Your task to perform on an android device: Go to privacy settings Image 0: 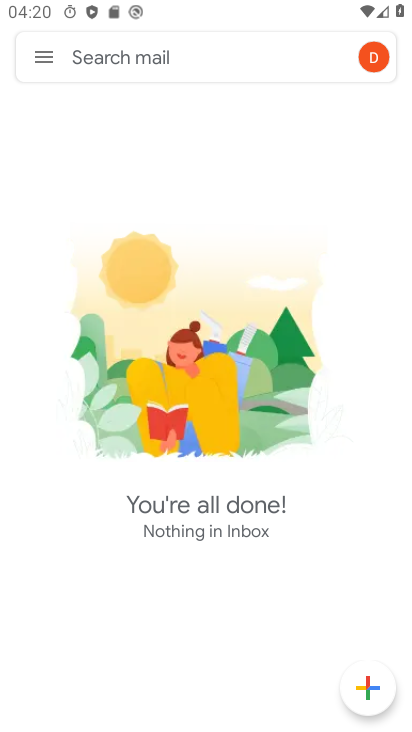
Step 0: press home button
Your task to perform on an android device: Go to privacy settings Image 1: 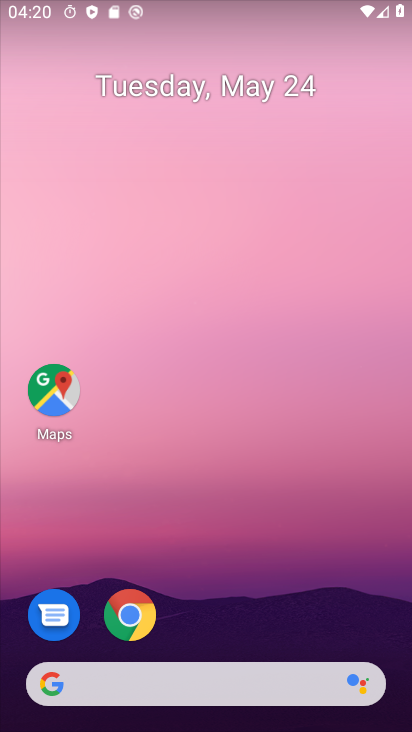
Step 1: drag from (215, 618) to (300, 85)
Your task to perform on an android device: Go to privacy settings Image 2: 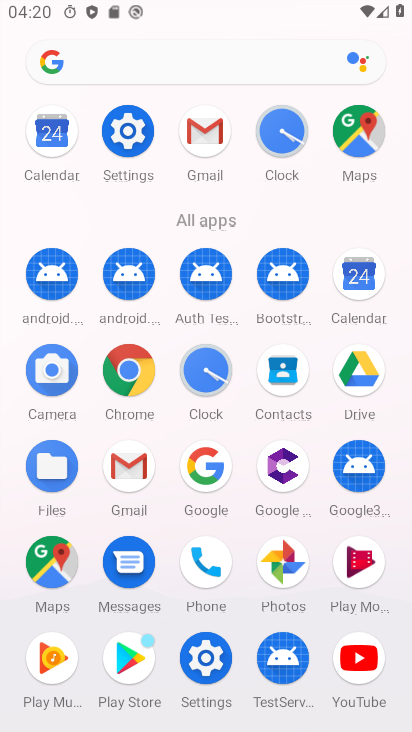
Step 2: click (136, 128)
Your task to perform on an android device: Go to privacy settings Image 3: 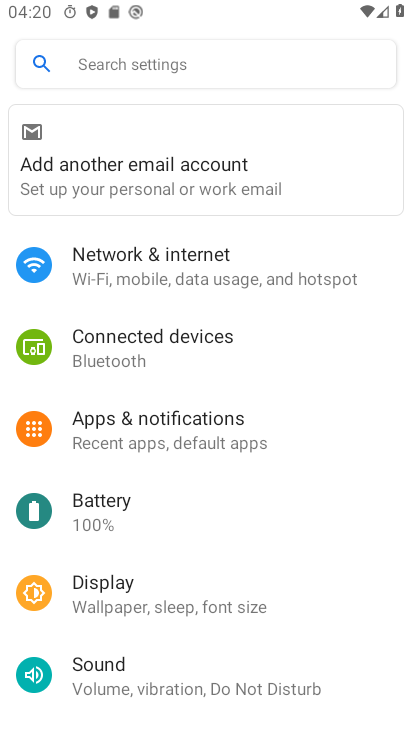
Step 3: drag from (147, 646) to (228, 145)
Your task to perform on an android device: Go to privacy settings Image 4: 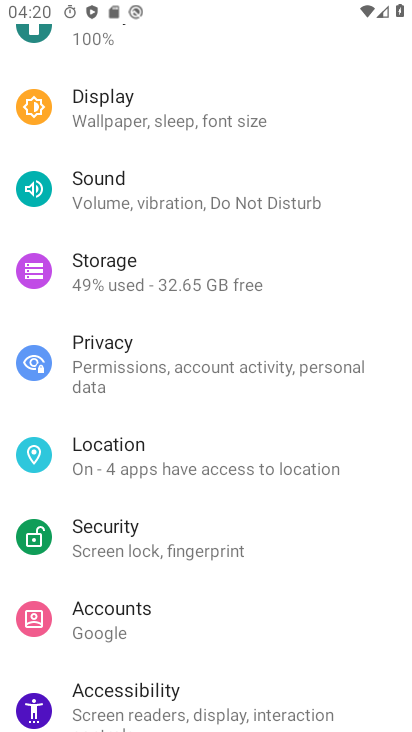
Step 4: click (109, 370)
Your task to perform on an android device: Go to privacy settings Image 5: 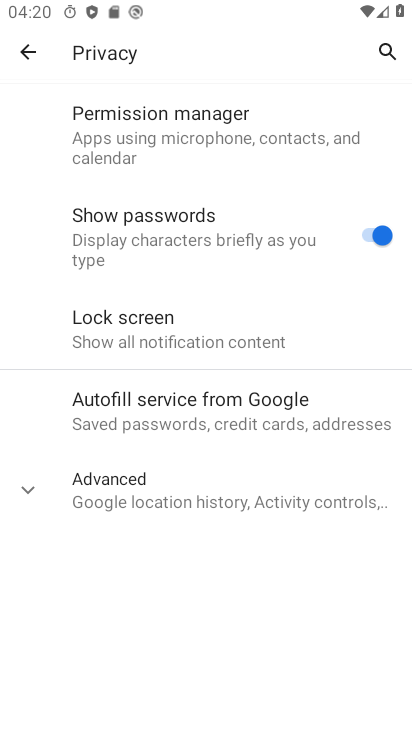
Step 5: task complete